Your task to perform on an android device: Go to location settings Image 0: 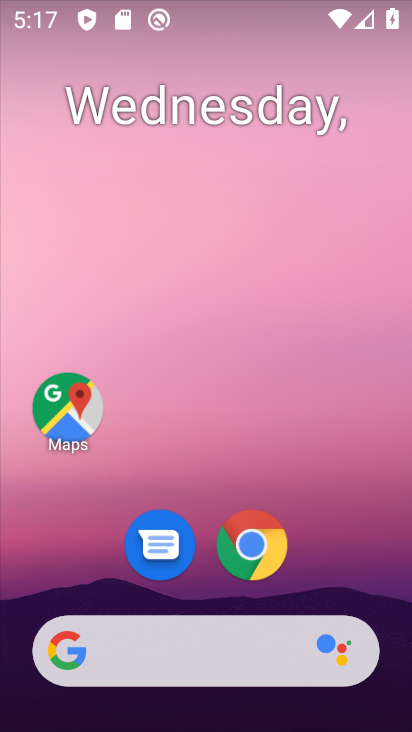
Step 0: drag from (250, 596) to (318, 24)
Your task to perform on an android device: Go to location settings Image 1: 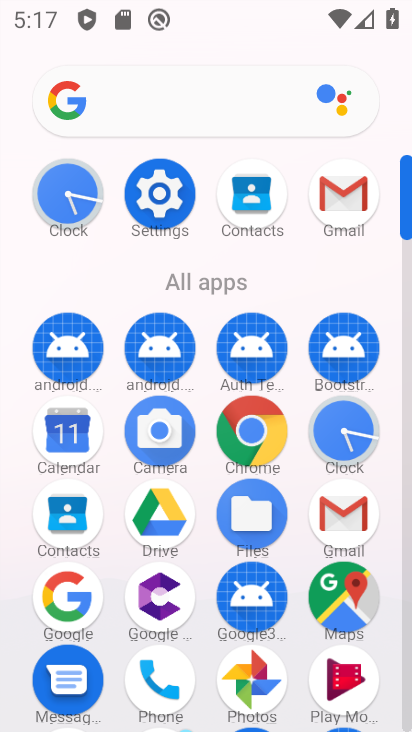
Step 1: click (176, 189)
Your task to perform on an android device: Go to location settings Image 2: 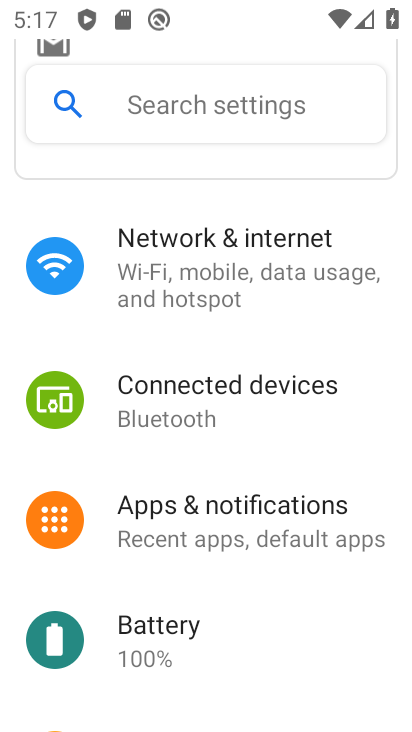
Step 2: drag from (203, 657) to (351, 131)
Your task to perform on an android device: Go to location settings Image 3: 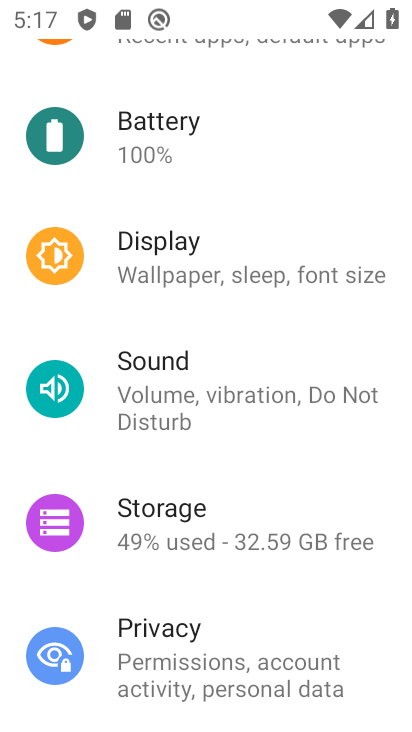
Step 3: drag from (208, 665) to (279, 179)
Your task to perform on an android device: Go to location settings Image 4: 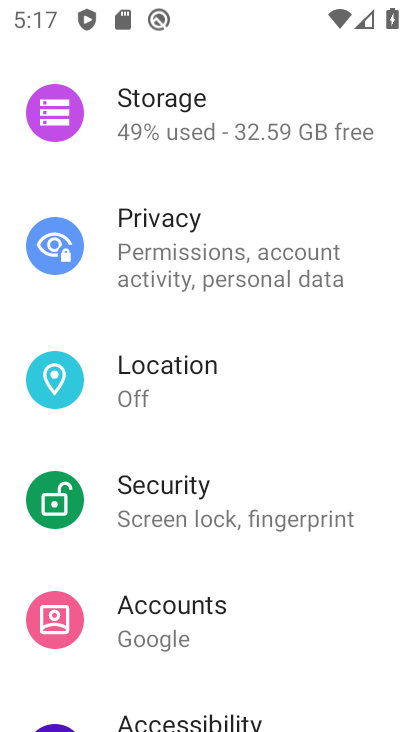
Step 4: click (149, 378)
Your task to perform on an android device: Go to location settings Image 5: 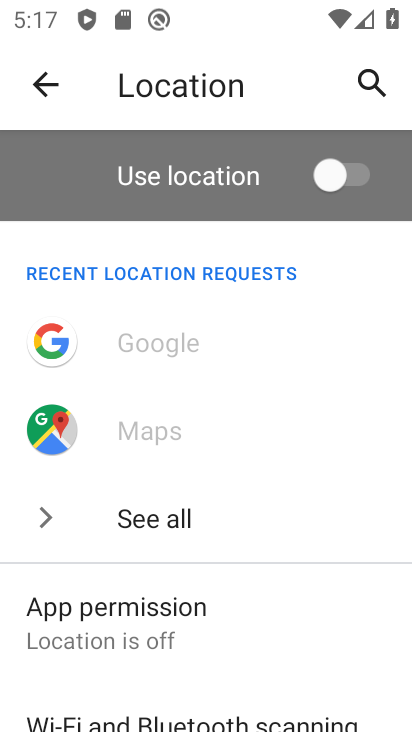
Step 5: task complete